Your task to perform on an android device: turn notification dots on Image 0: 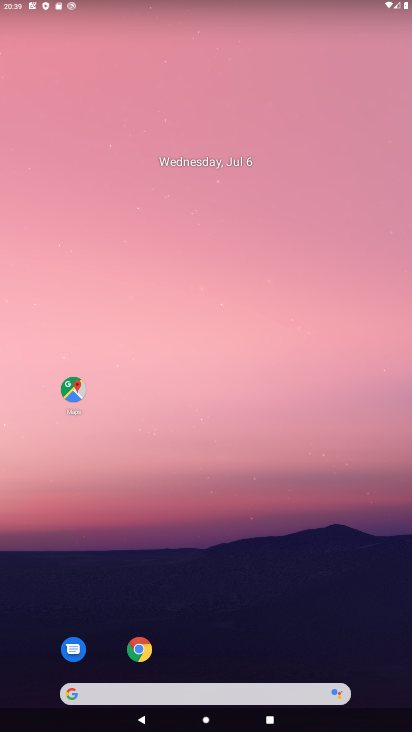
Step 0: drag from (252, 678) to (261, 7)
Your task to perform on an android device: turn notification dots on Image 1: 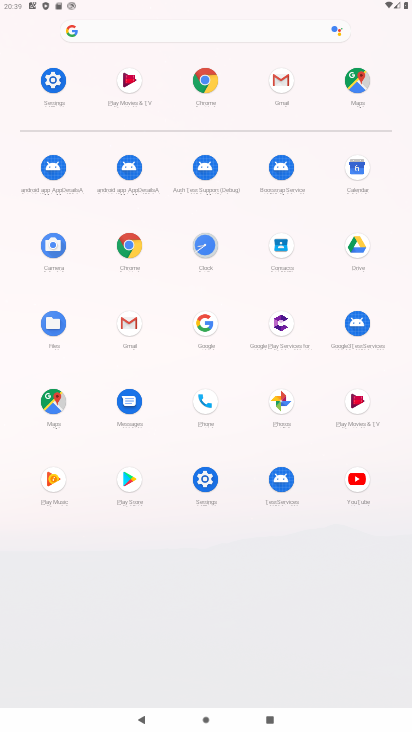
Step 1: click (214, 482)
Your task to perform on an android device: turn notification dots on Image 2: 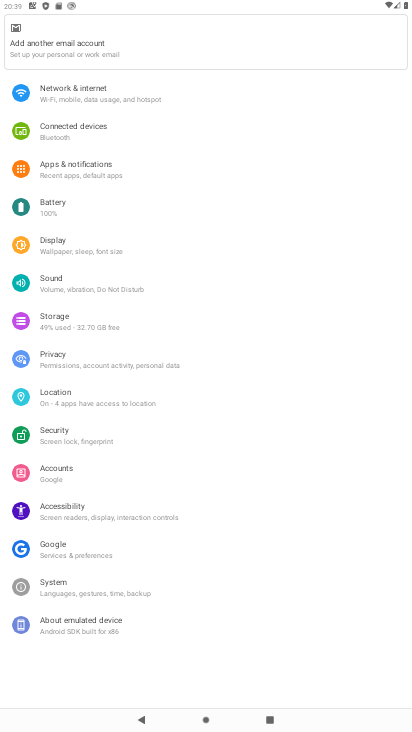
Step 2: click (108, 170)
Your task to perform on an android device: turn notification dots on Image 3: 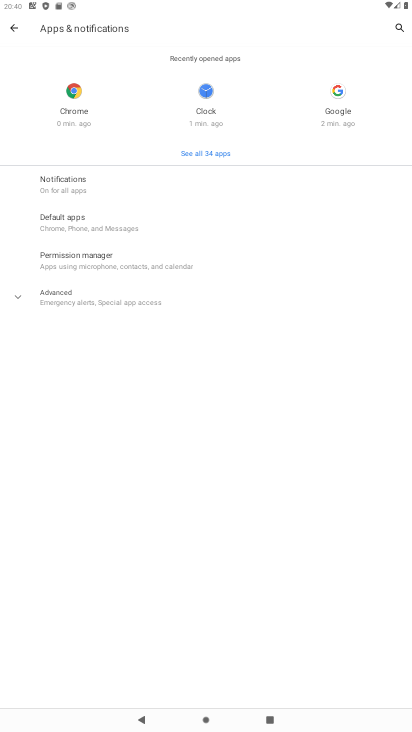
Step 3: click (98, 188)
Your task to perform on an android device: turn notification dots on Image 4: 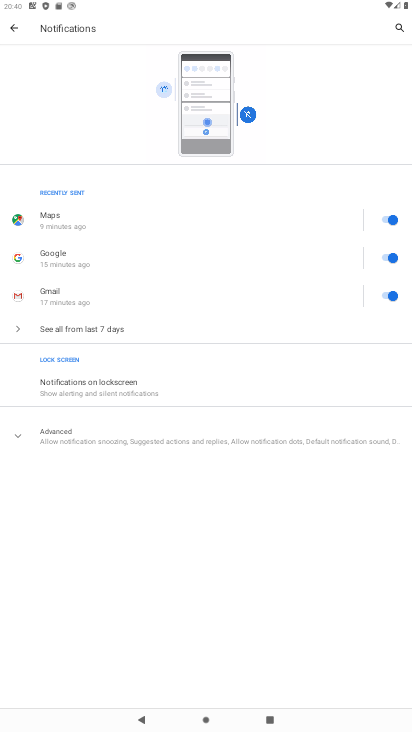
Step 4: click (147, 432)
Your task to perform on an android device: turn notification dots on Image 5: 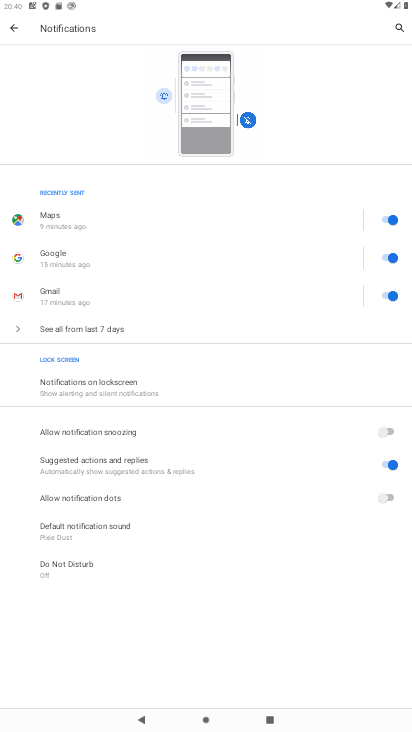
Step 5: click (397, 496)
Your task to perform on an android device: turn notification dots on Image 6: 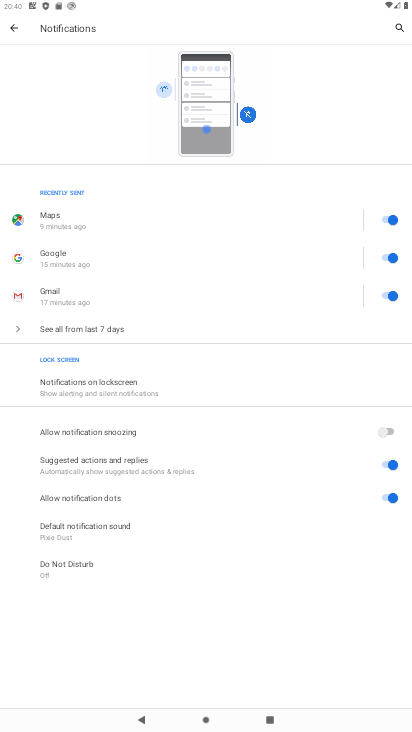
Step 6: task complete